Your task to perform on an android device: see creations saved in the google photos Image 0: 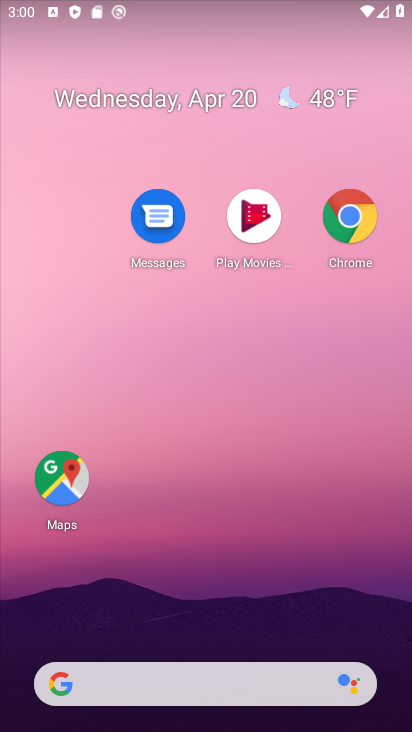
Step 0: drag from (68, 532) to (202, 236)
Your task to perform on an android device: see creations saved in the google photos Image 1: 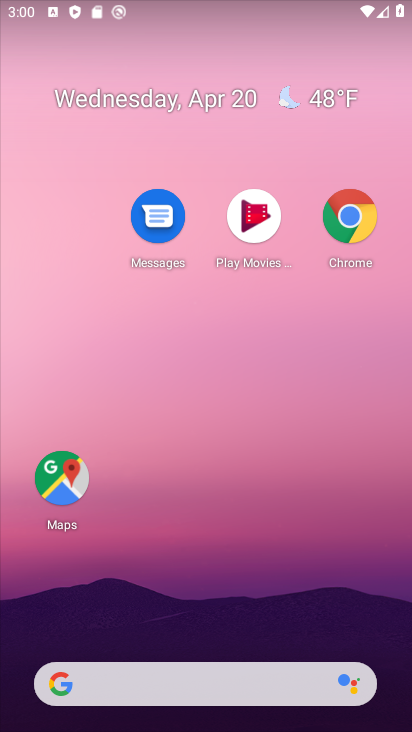
Step 1: drag from (121, 426) to (241, 156)
Your task to perform on an android device: see creations saved in the google photos Image 2: 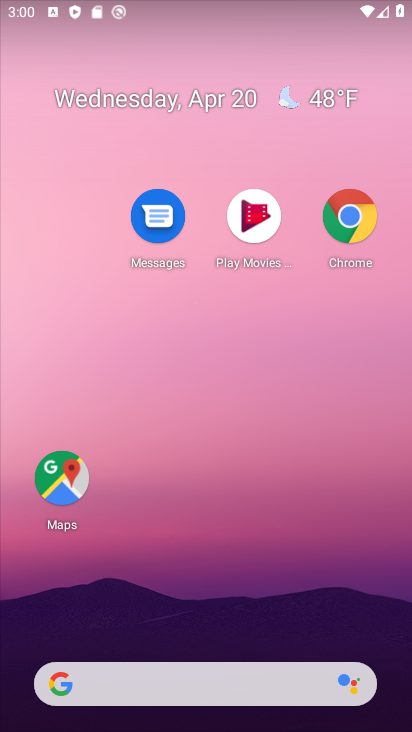
Step 2: drag from (6, 484) to (255, 188)
Your task to perform on an android device: see creations saved in the google photos Image 3: 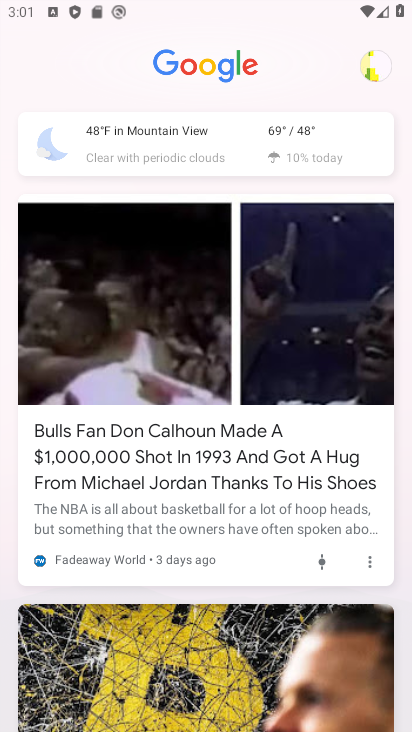
Step 3: press back button
Your task to perform on an android device: see creations saved in the google photos Image 4: 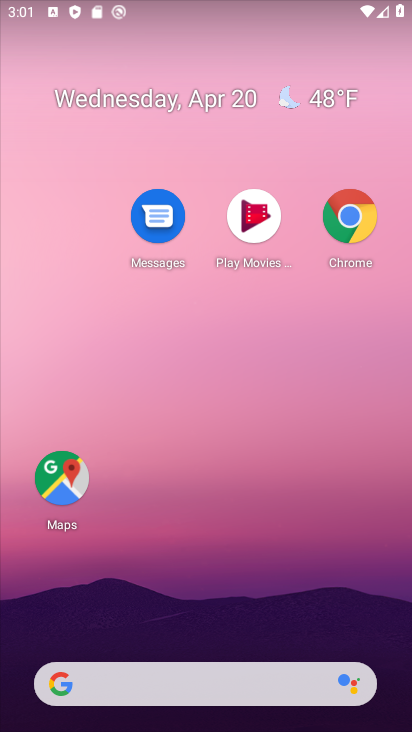
Step 4: drag from (14, 581) to (131, 304)
Your task to perform on an android device: see creations saved in the google photos Image 5: 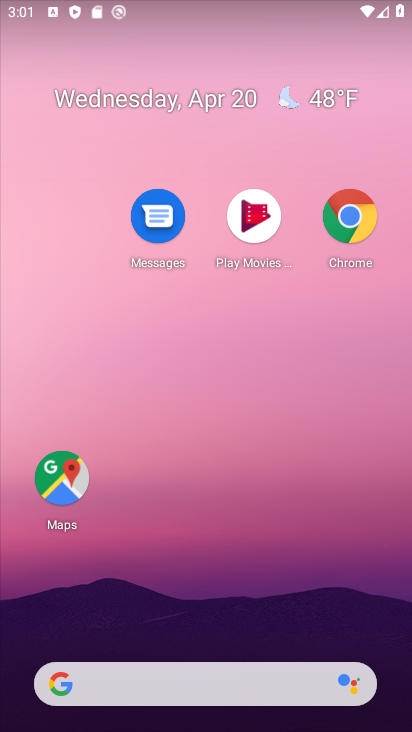
Step 5: drag from (88, 418) to (129, 279)
Your task to perform on an android device: see creations saved in the google photos Image 6: 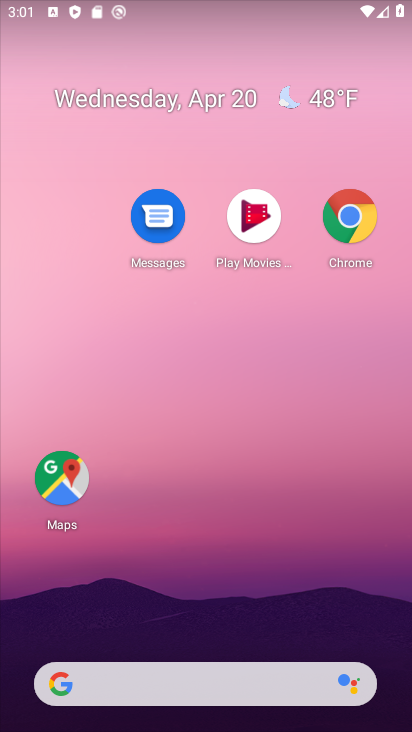
Step 6: drag from (33, 385) to (60, 270)
Your task to perform on an android device: see creations saved in the google photos Image 7: 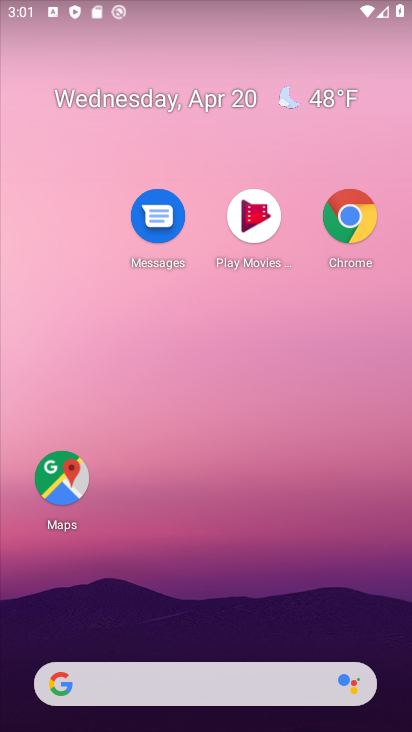
Step 7: drag from (110, 401) to (140, 329)
Your task to perform on an android device: see creations saved in the google photos Image 8: 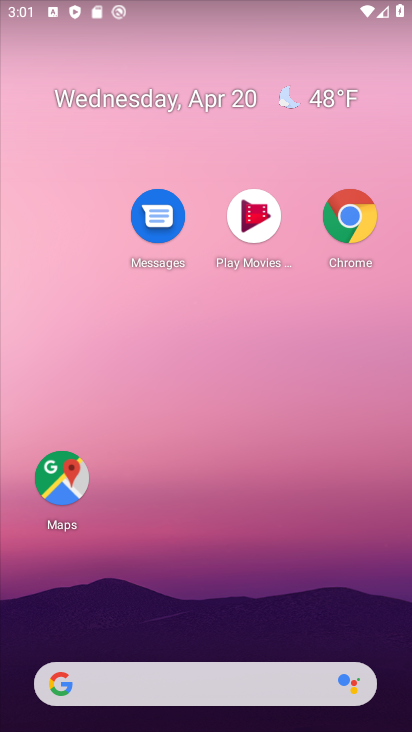
Step 8: drag from (42, 416) to (75, 312)
Your task to perform on an android device: see creations saved in the google photos Image 9: 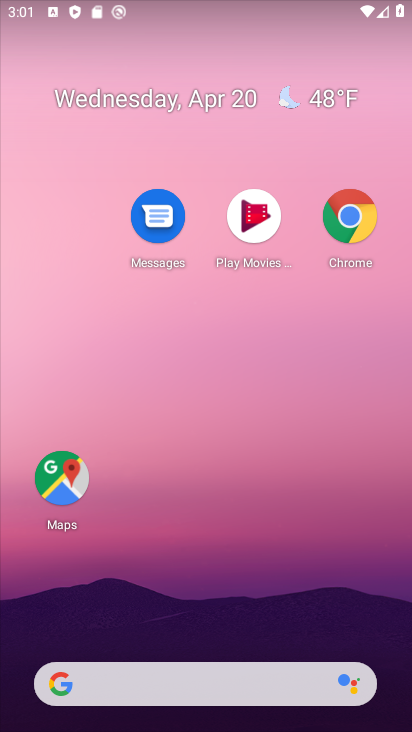
Step 9: drag from (12, 525) to (91, 250)
Your task to perform on an android device: see creations saved in the google photos Image 10: 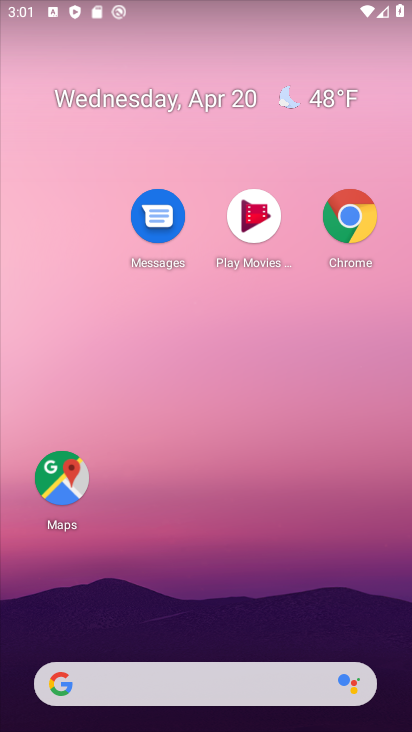
Step 10: drag from (9, 620) to (151, 170)
Your task to perform on an android device: see creations saved in the google photos Image 11: 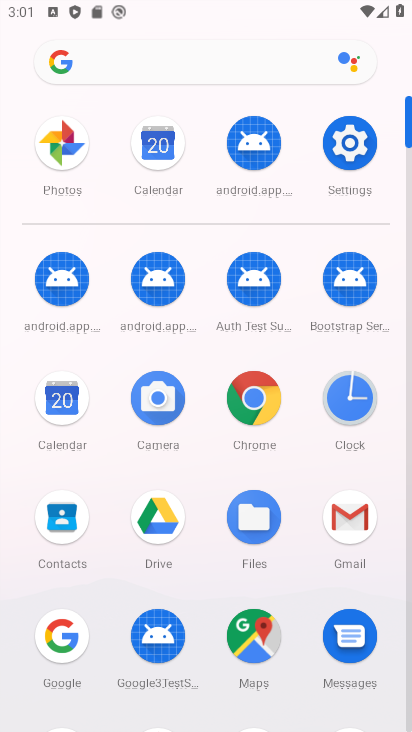
Step 11: drag from (225, 623) to (278, 287)
Your task to perform on an android device: see creations saved in the google photos Image 12: 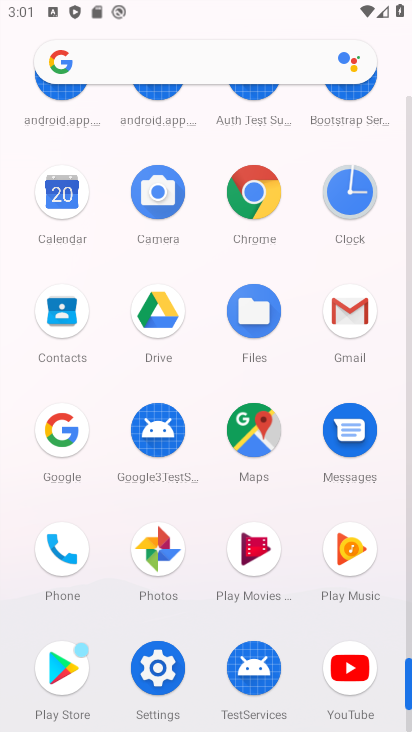
Step 12: click (148, 550)
Your task to perform on an android device: see creations saved in the google photos Image 13: 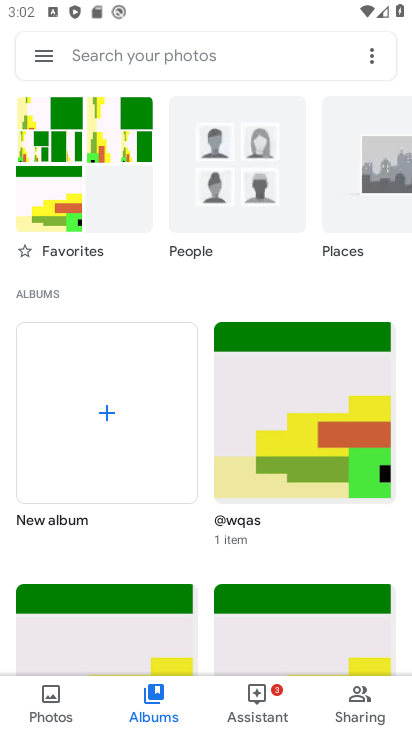
Step 13: click (74, 37)
Your task to perform on an android device: see creations saved in the google photos Image 14: 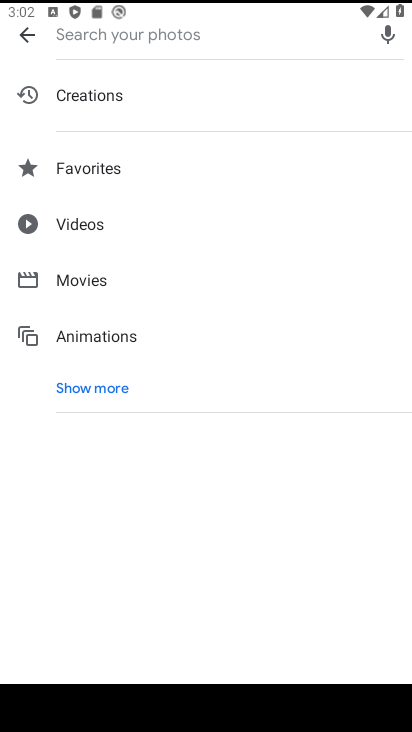
Step 14: click (43, 89)
Your task to perform on an android device: see creations saved in the google photos Image 15: 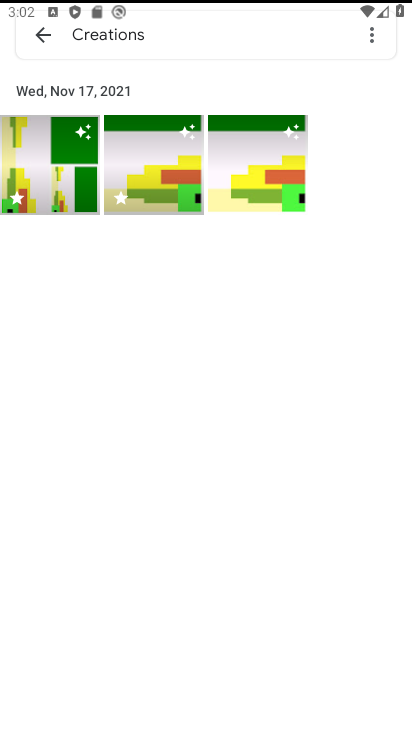
Step 15: task complete